Your task to perform on an android device: turn off javascript in the chrome app Image 0: 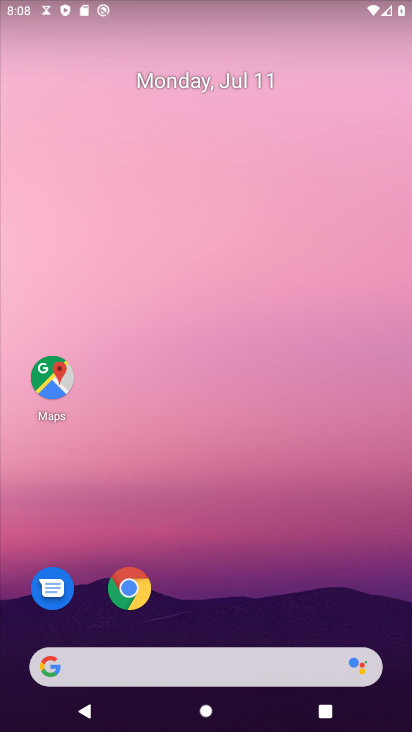
Step 0: press home button
Your task to perform on an android device: turn off javascript in the chrome app Image 1: 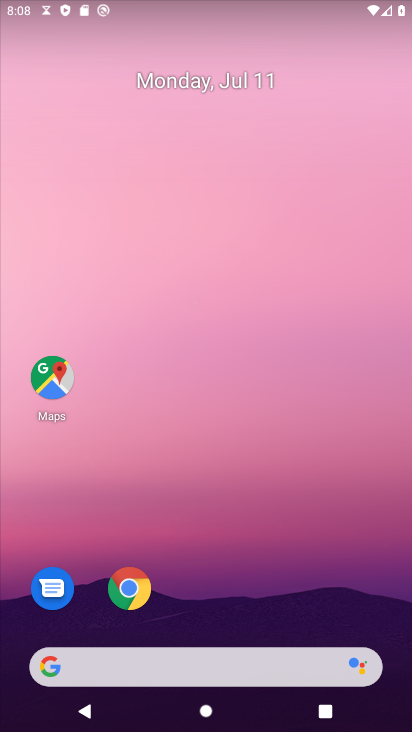
Step 1: click (130, 585)
Your task to perform on an android device: turn off javascript in the chrome app Image 2: 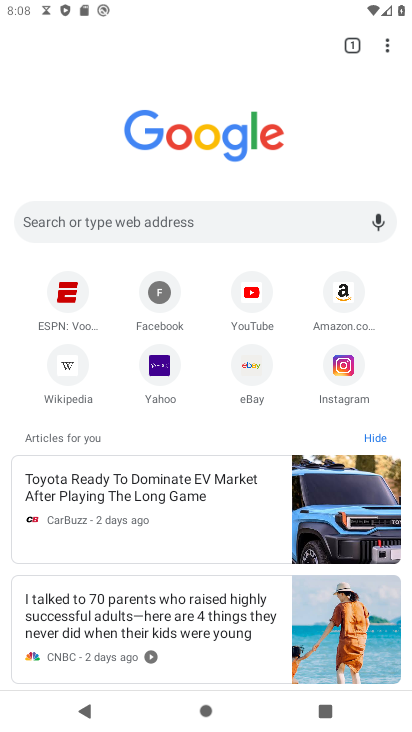
Step 2: drag from (387, 47) to (212, 389)
Your task to perform on an android device: turn off javascript in the chrome app Image 3: 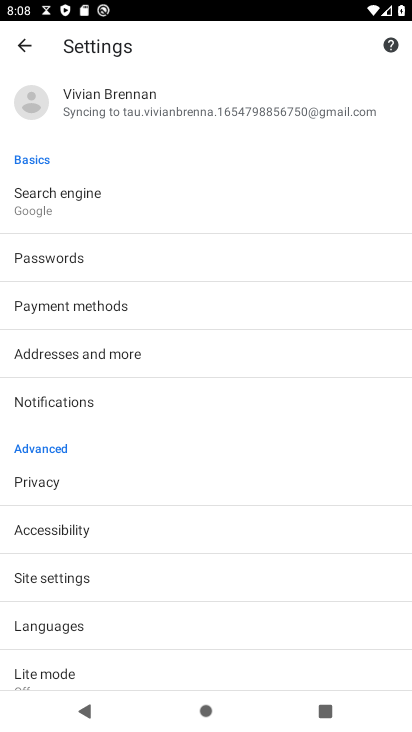
Step 3: drag from (180, 478) to (196, 149)
Your task to perform on an android device: turn off javascript in the chrome app Image 4: 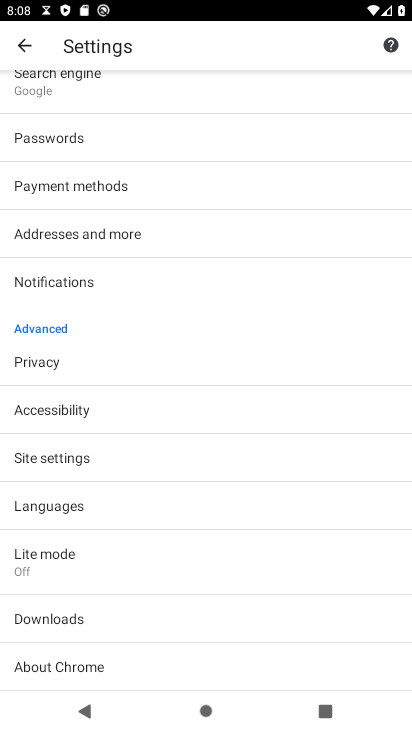
Step 4: drag from (194, 587) to (217, 255)
Your task to perform on an android device: turn off javascript in the chrome app Image 5: 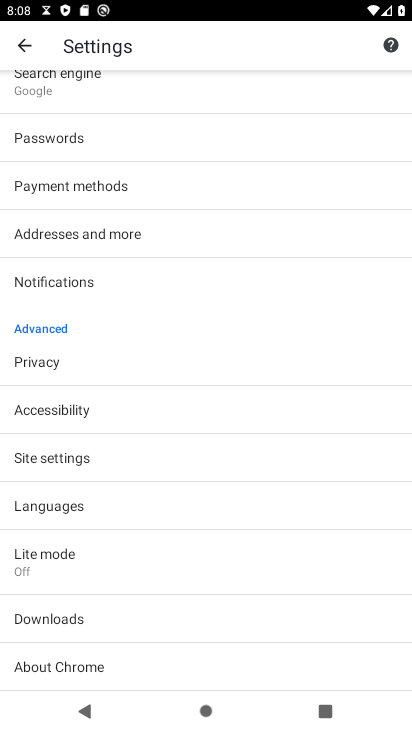
Step 5: drag from (242, 604) to (229, 183)
Your task to perform on an android device: turn off javascript in the chrome app Image 6: 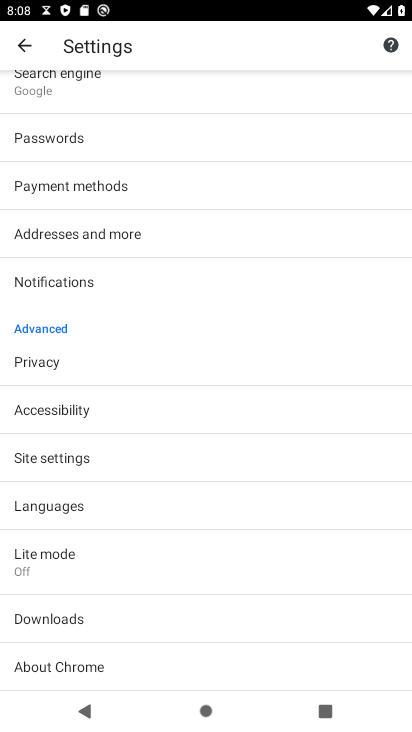
Step 6: click (66, 462)
Your task to perform on an android device: turn off javascript in the chrome app Image 7: 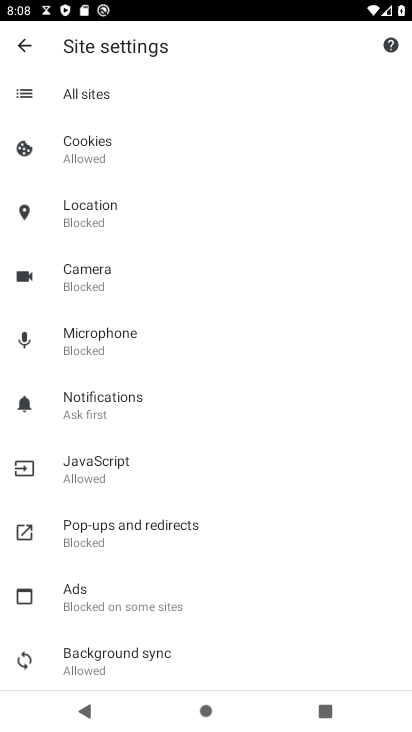
Step 7: click (66, 462)
Your task to perform on an android device: turn off javascript in the chrome app Image 8: 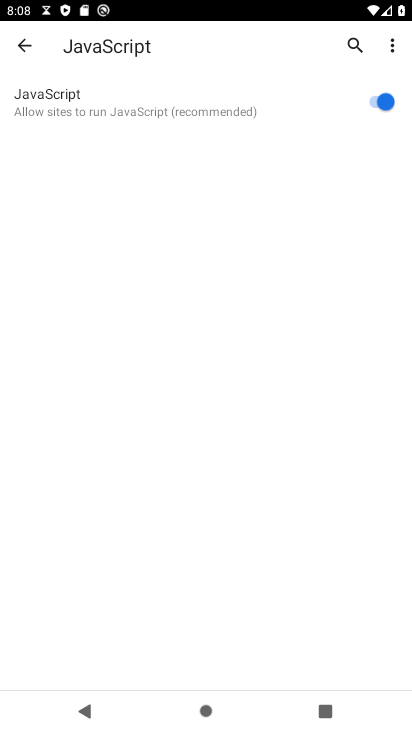
Step 8: click (379, 107)
Your task to perform on an android device: turn off javascript in the chrome app Image 9: 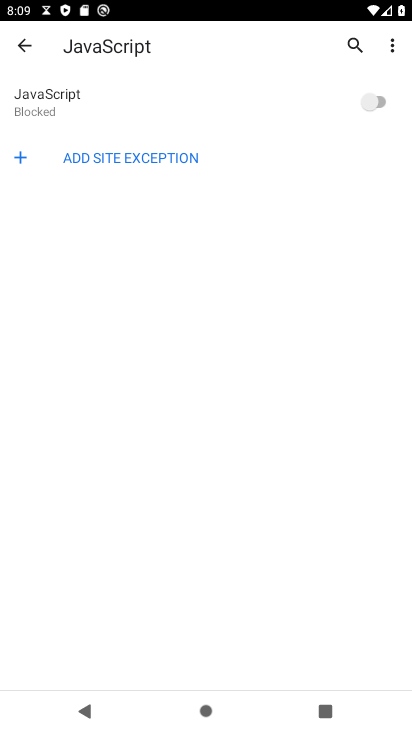
Step 9: task complete